Your task to perform on an android device: open the mobile data screen to see how much data has been used Image 0: 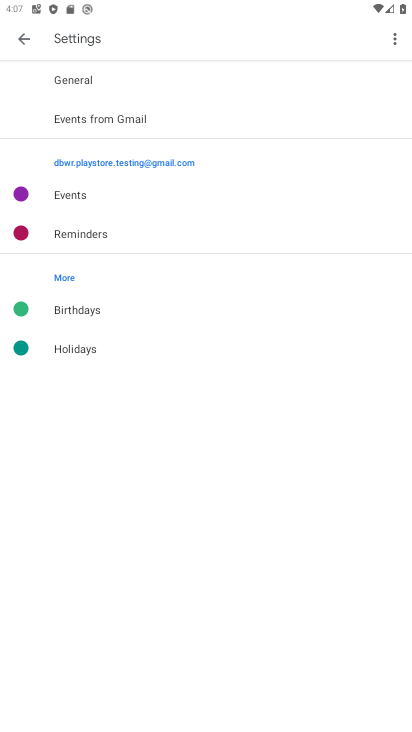
Step 0: press home button
Your task to perform on an android device: open the mobile data screen to see how much data has been used Image 1: 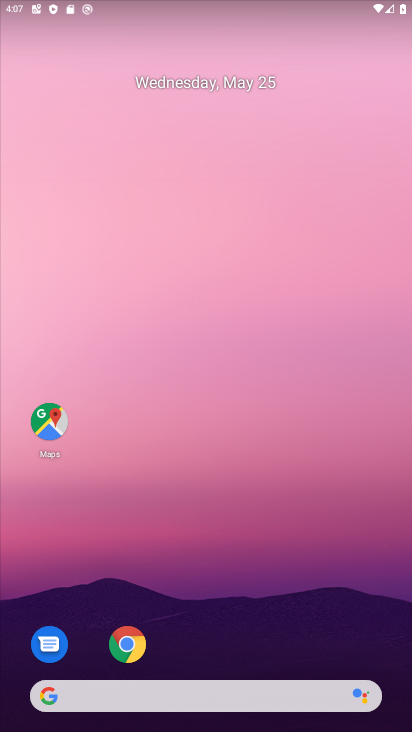
Step 1: drag from (245, 652) to (292, 75)
Your task to perform on an android device: open the mobile data screen to see how much data has been used Image 2: 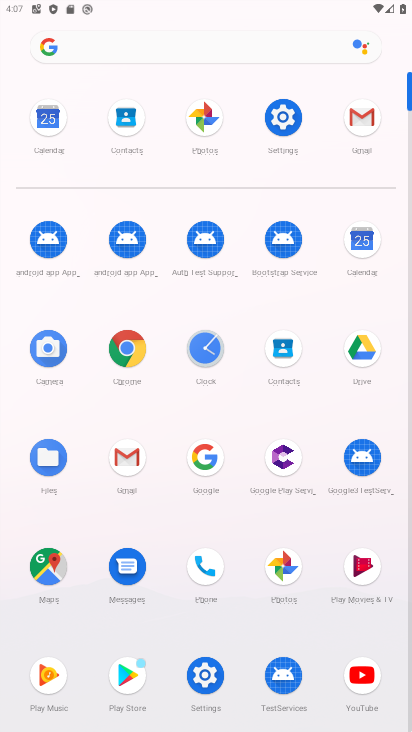
Step 2: click (285, 122)
Your task to perform on an android device: open the mobile data screen to see how much data has been used Image 3: 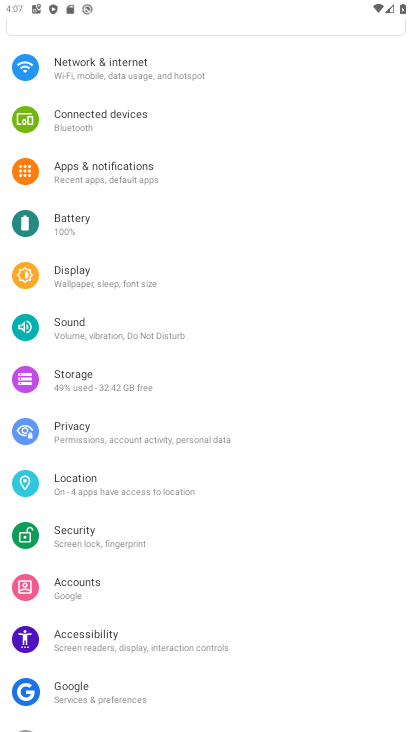
Step 3: click (101, 78)
Your task to perform on an android device: open the mobile data screen to see how much data has been used Image 4: 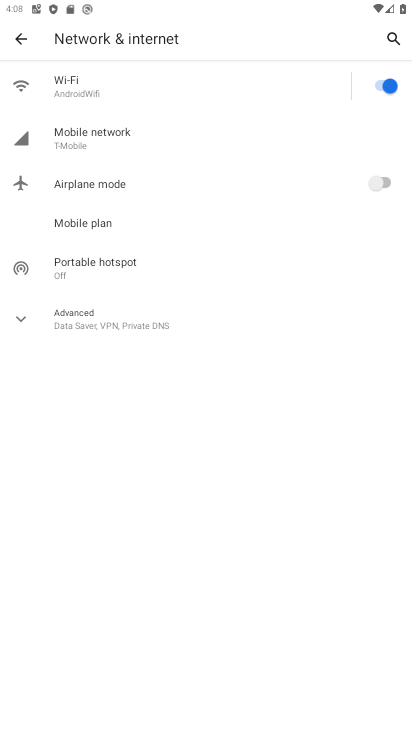
Step 4: click (73, 148)
Your task to perform on an android device: open the mobile data screen to see how much data has been used Image 5: 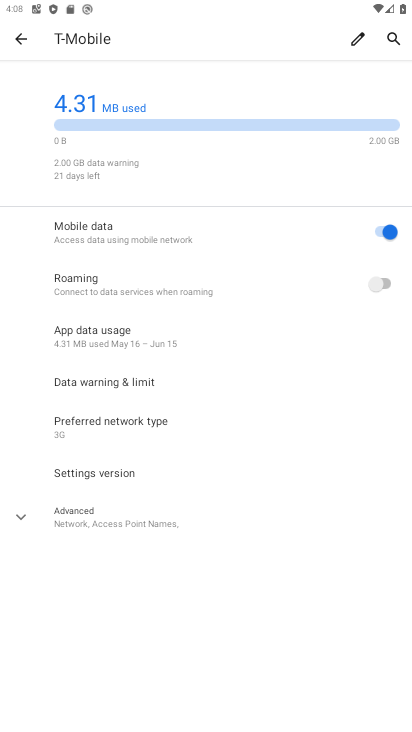
Step 5: click (97, 340)
Your task to perform on an android device: open the mobile data screen to see how much data has been used Image 6: 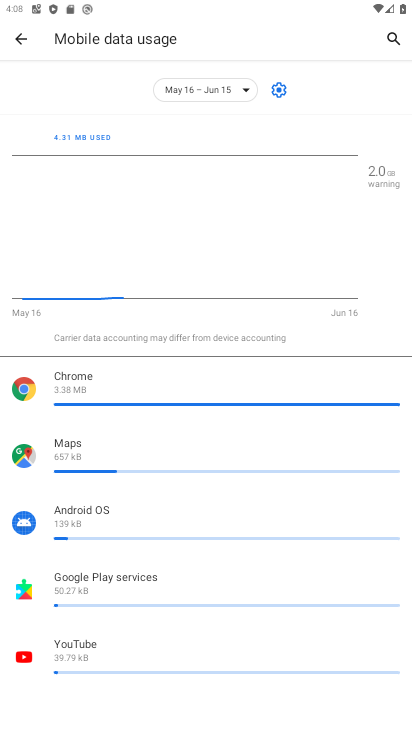
Step 6: task complete